Your task to perform on an android device: Is it going to rain this weekend? Image 0: 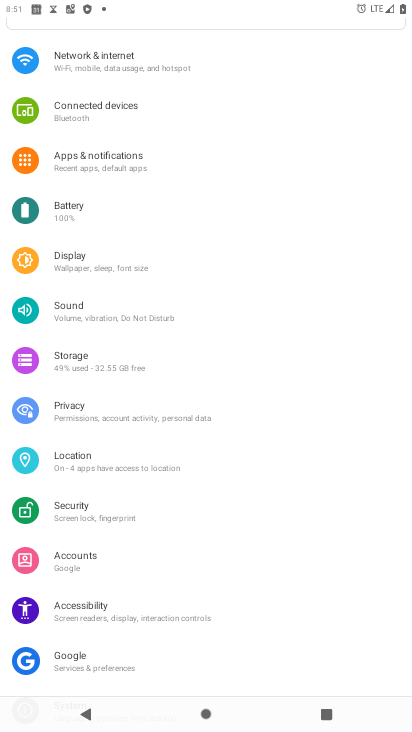
Step 0: press home button
Your task to perform on an android device: Is it going to rain this weekend? Image 1: 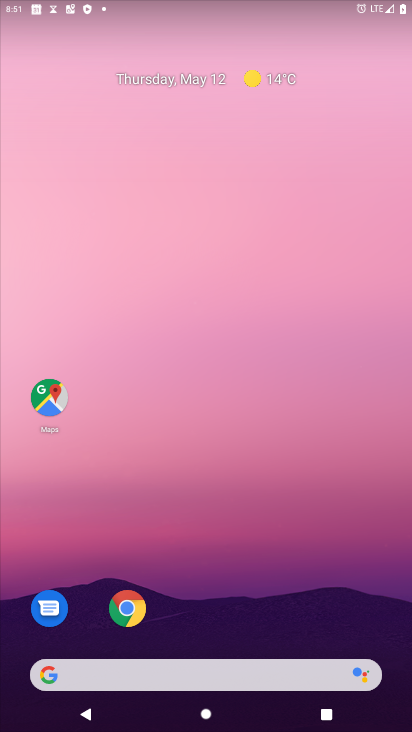
Step 1: drag from (247, 647) to (247, 272)
Your task to perform on an android device: Is it going to rain this weekend? Image 2: 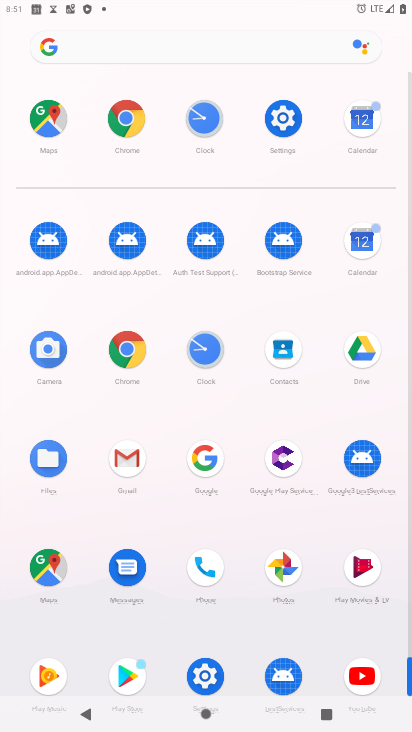
Step 2: click (205, 463)
Your task to perform on an android device: Is it going to rain this weekend? Image 3: 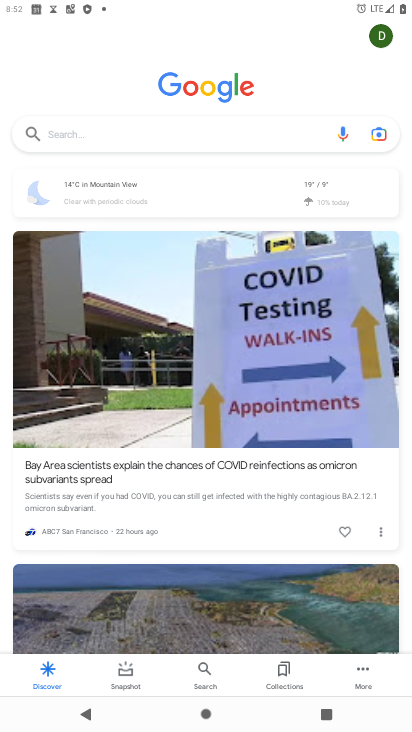
Step 3: click (143, 127)
Your task to perform on an android device: Is it going to rain this weekend? Image 4: 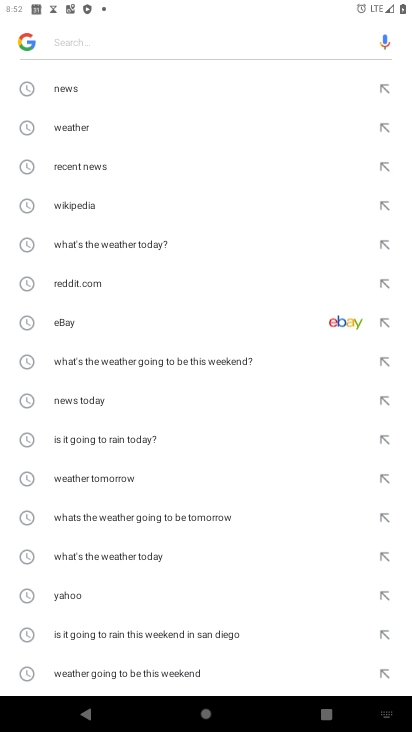
Step 4: click (96, 636)
Your task to perform on an android device: Is it going to rain this weekend? Image 5: 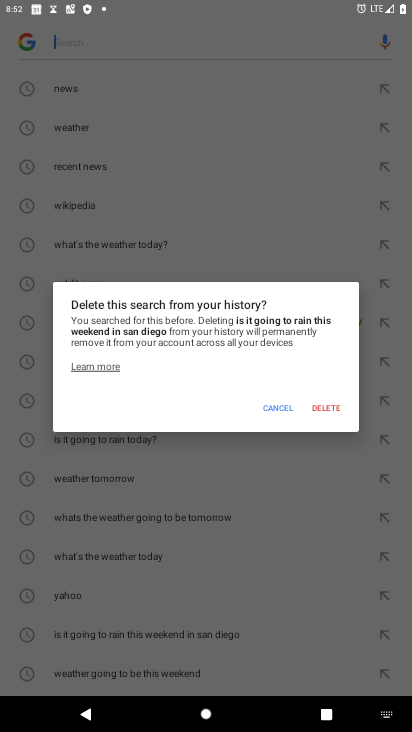
Step 5: click (275, 405)
Your task to perform on an android device: Is it going to rain this weekend? Image 6: 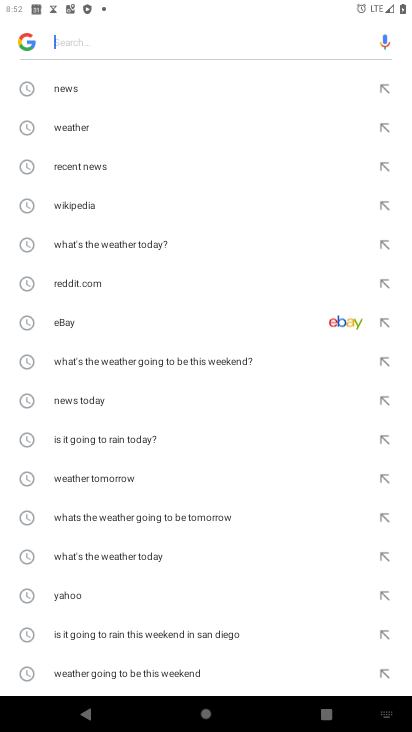
Step 6: click (164, 635)
Your task to perform on an android device: Is it going to rain this weekend? Image 7: 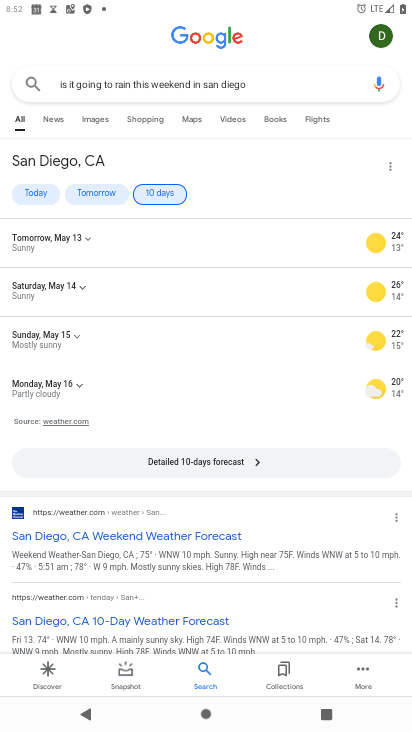
Step 7: task complete